Your task to perform on an android device: Open the Play Movies app and select the watchlist tab. Image 0: 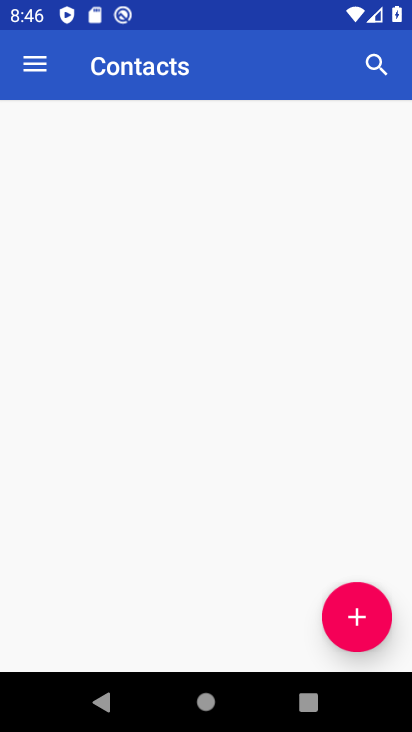
Step 0: click (231, 19)
Your task to perform on an android device: Open the Play Movies app and select the watchlist tab. Image 1: 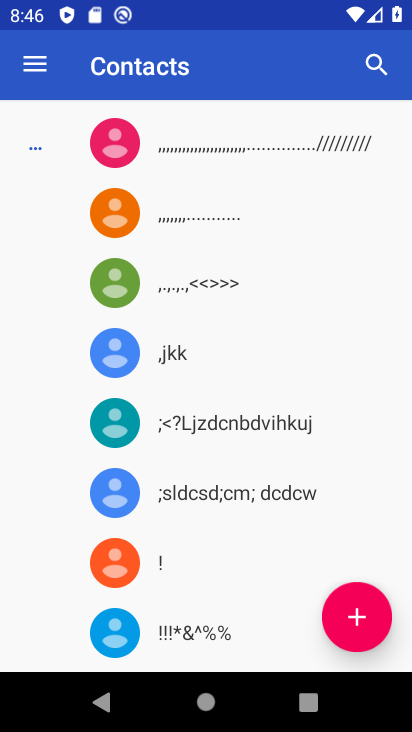
Step 1: press home button
Your task to perform on an android device: Open the Play Movies app and select the watchlist tab. Image 2: 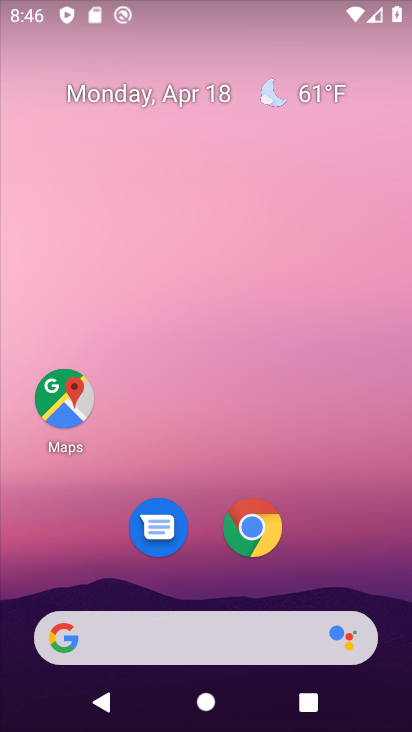
Step 2: drag from (195, 506) to (217, 4)
Your task to perform on an android device: Open the Play Movies app and select the watchlist tab. Image 3: 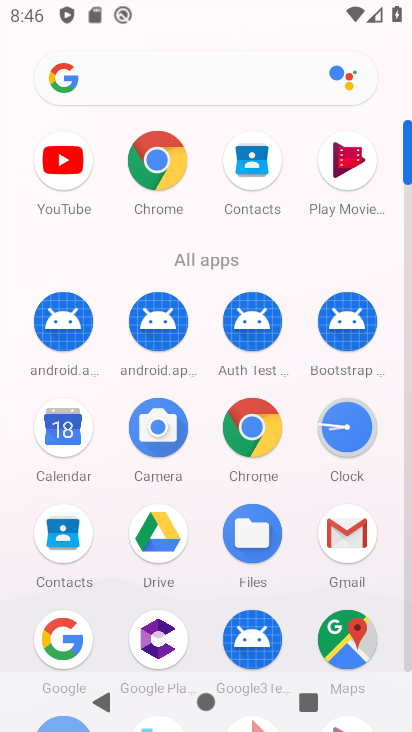
Step 3: click (348, 171)
Your task to perform on an android device: Open the Play Movies app and select the watchlist tab. Image 4: 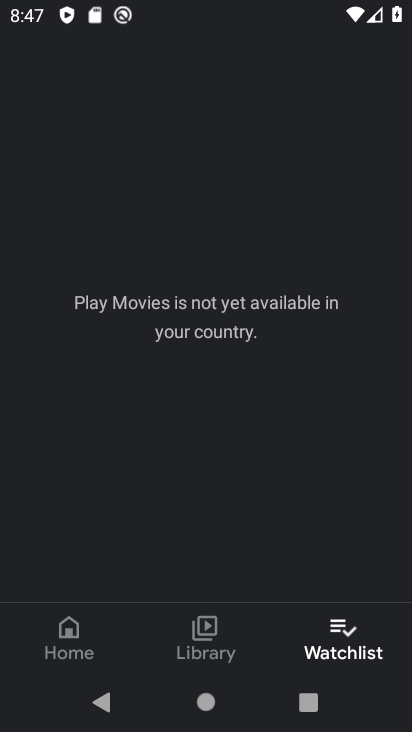
Step 4: task complete